Your task to perform on an android device: turn smart compose on in the gmail app Image 0: 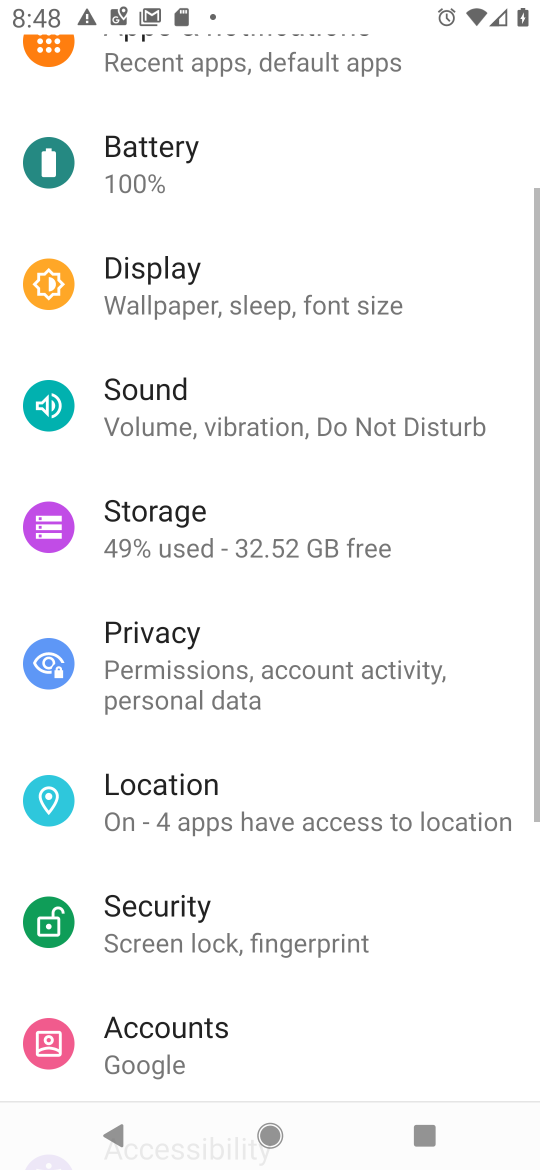
Step 0: press home button
Your task to perform on an android device: turn smart compose on in the gmail app Image 1: 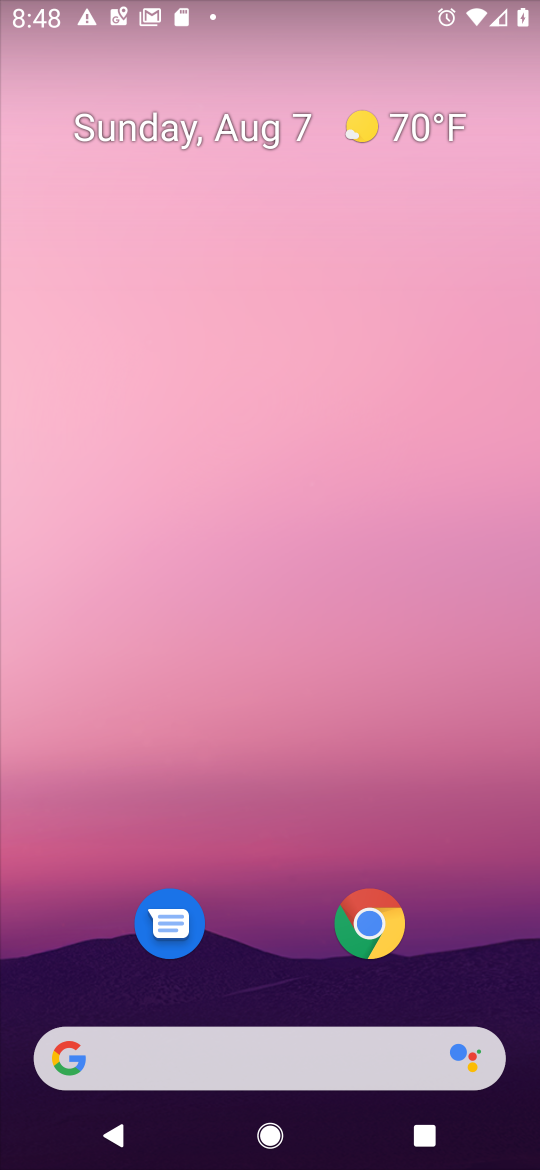
Step 1: drag from (485, 977) to (283, 43)
Your task to perform on an android device: turn smart compose on in the gmail app Image 2: 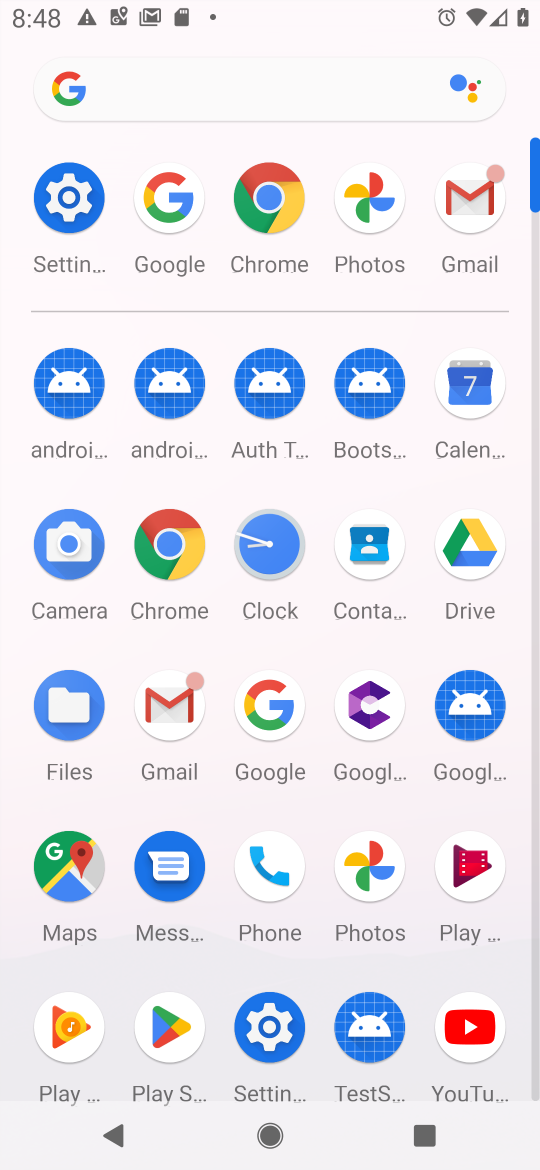
Step 2: click (191, 737)
Your task to perform on an android device: turn smart compose on in the gmail app Image 3: 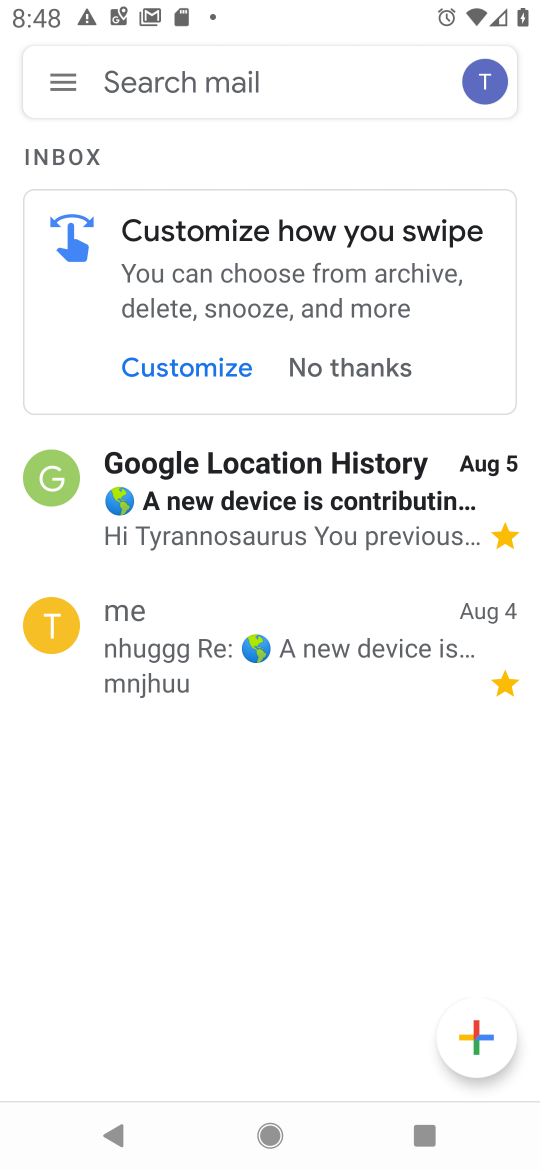
Step 3: click (69, 70)
Your task to perform on an android device: turn smart compose on in the gmail app Image 4: 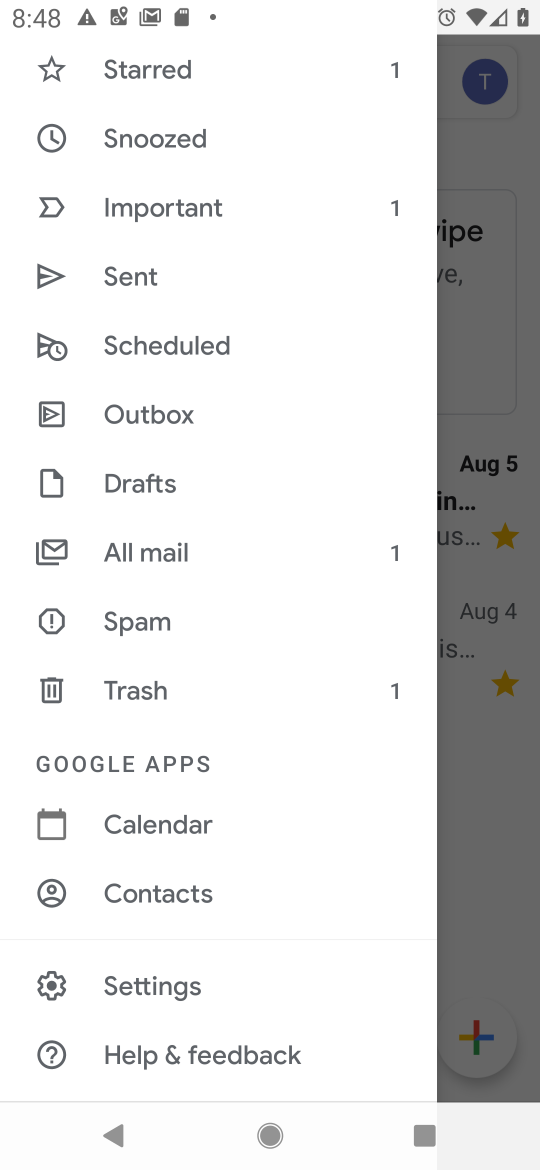
Step 4: click (148, 993)
Your task to perform on an android device: turn smart compose on in the gmail app Image 5: 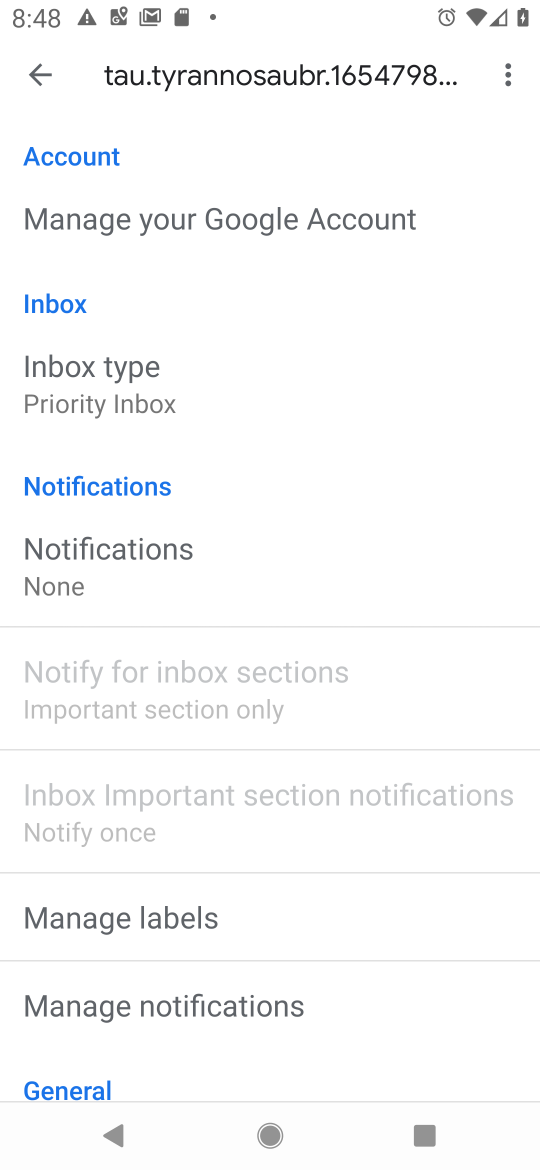
Step 5: task complete